Your task to perform on an android device: Open settings on Google Maps Image 0: 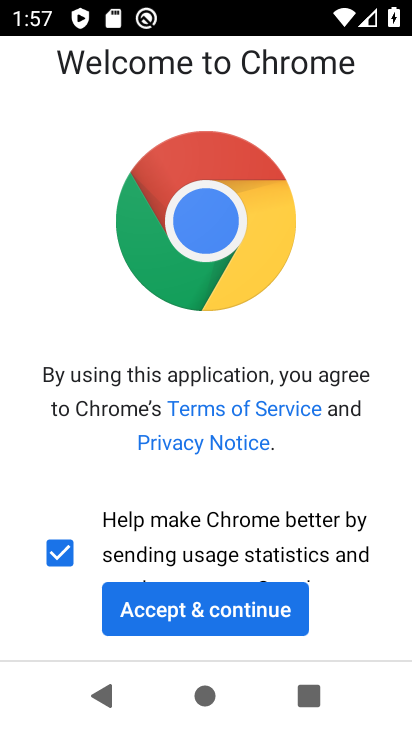
Step 0: press home button
Your task to perform on an android device: Open settings on Google Maps Image 1: 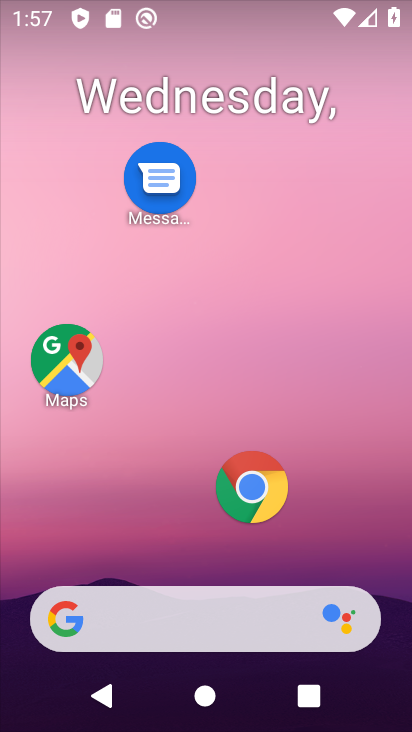
Step 1: click (88, 370)
Your task to perform on an android device: Open settings on Google Maps Image 2: 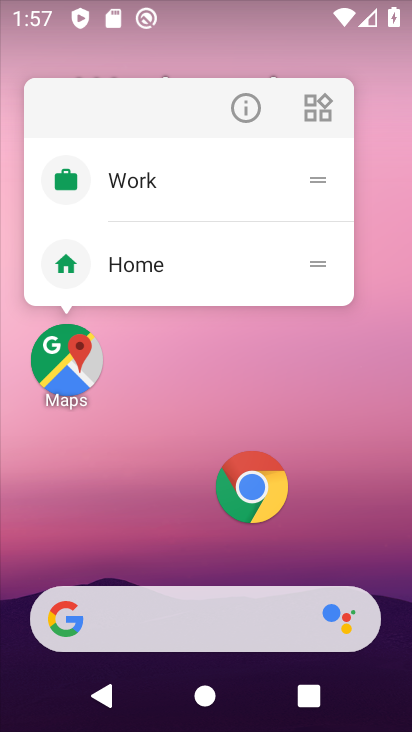
Step 2: click (71, 364)
Your task to perform on an android device: Open settings on Google Maps Image 3: 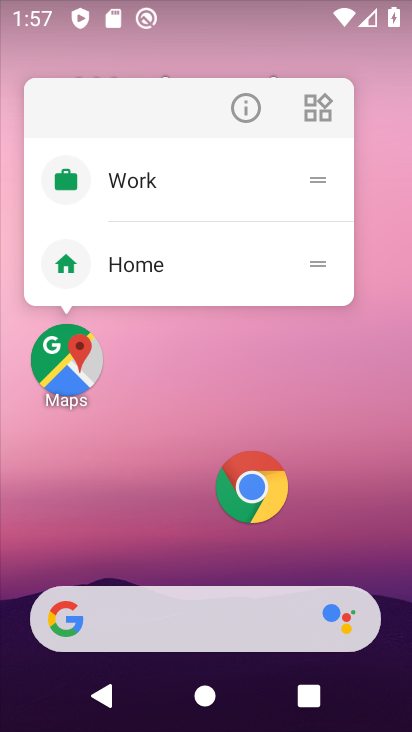
Step 3: click (71, 364)
Your task to perform on an android device: Open settings on Google Maps Image 4: 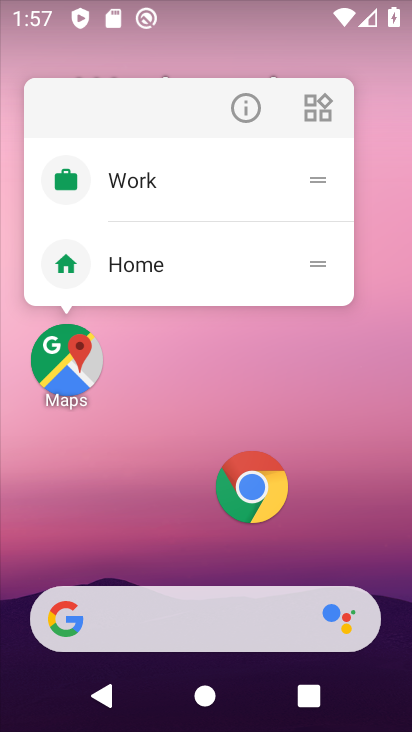
Step 4: click (71, 364)
Your task to perform on an android device: Open settings on Google Maps Image 5: 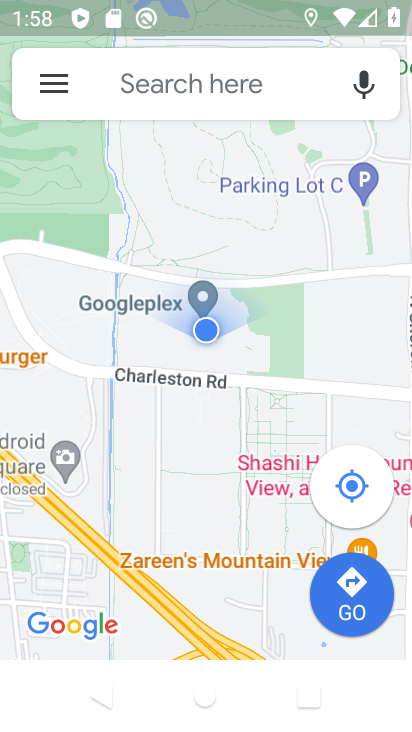
Step 5: click (53, 76)
Your task to perform on an android device: Open settings on Google Maps Image 6: 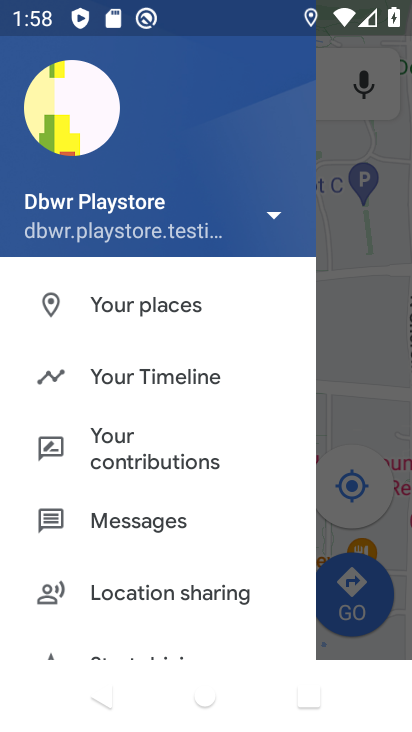
Step 6: drag from (159, 628) to (195, 160)
Your task to perform on an android device: Open settings on Google Maps Image 7: 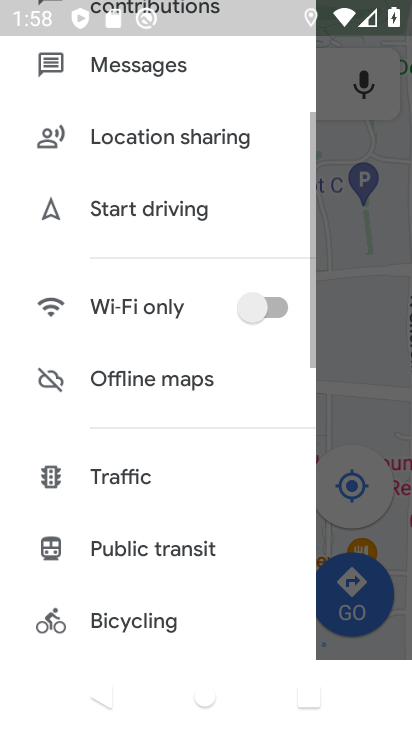
Step 7: drag from (146, 629) to (143, 259)
Your task to perform on an android device: Open settings on Google Maps Image 8: 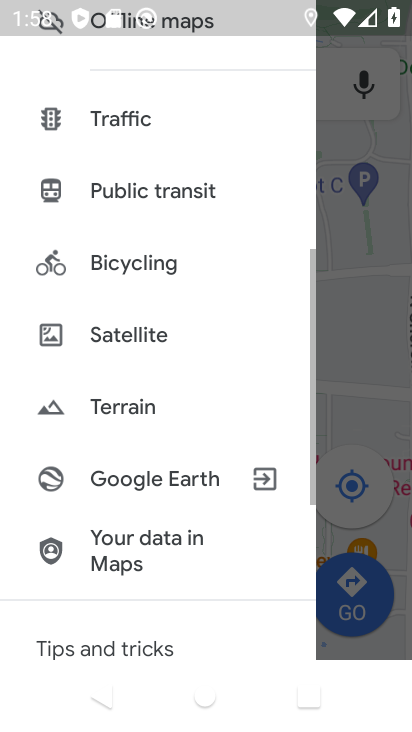
Step 8: drag from (147, 601) to (154, 317)
Your task to perform on an android device: Open settings on Google Maps Image 9: 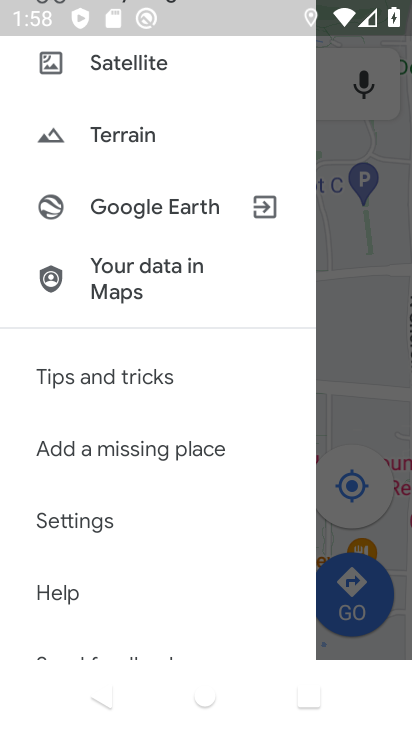
Step 9: click (86, 527)
Your task to perform on an android device: Open settings on Google Maps Image 10: 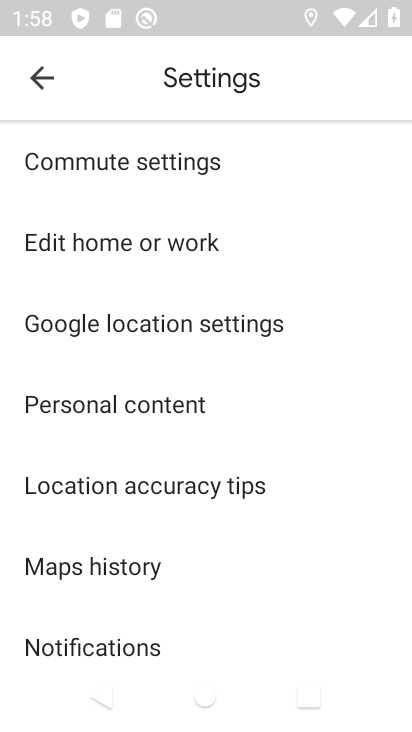
Step 10: task complete